Your task to perform on an android device: change the clock display to show seconds Image 0: 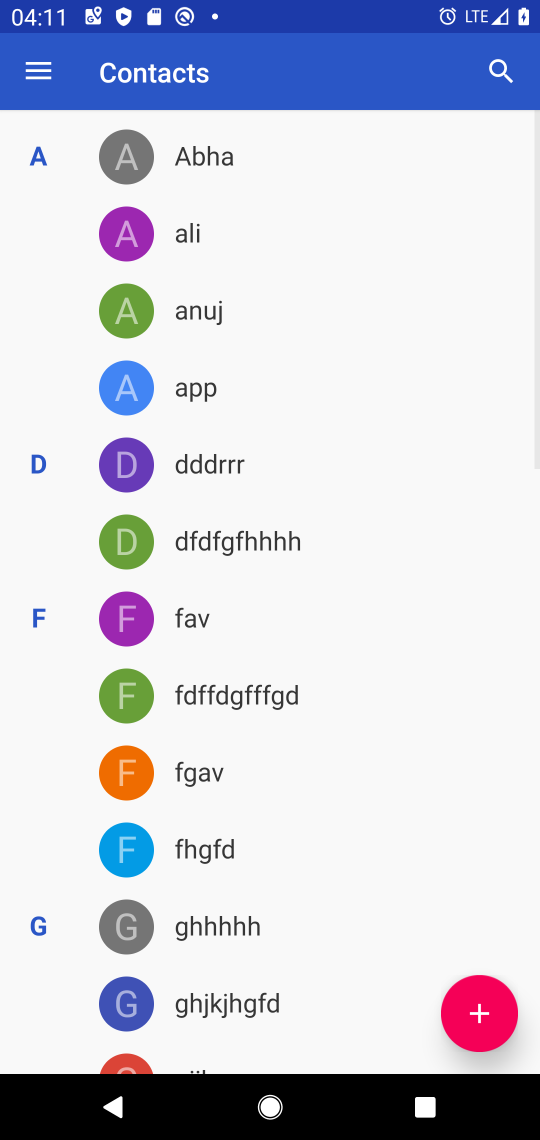
Step 0: press back button
Your task to perform on an android device: change the clock display to show seconds Image 1: 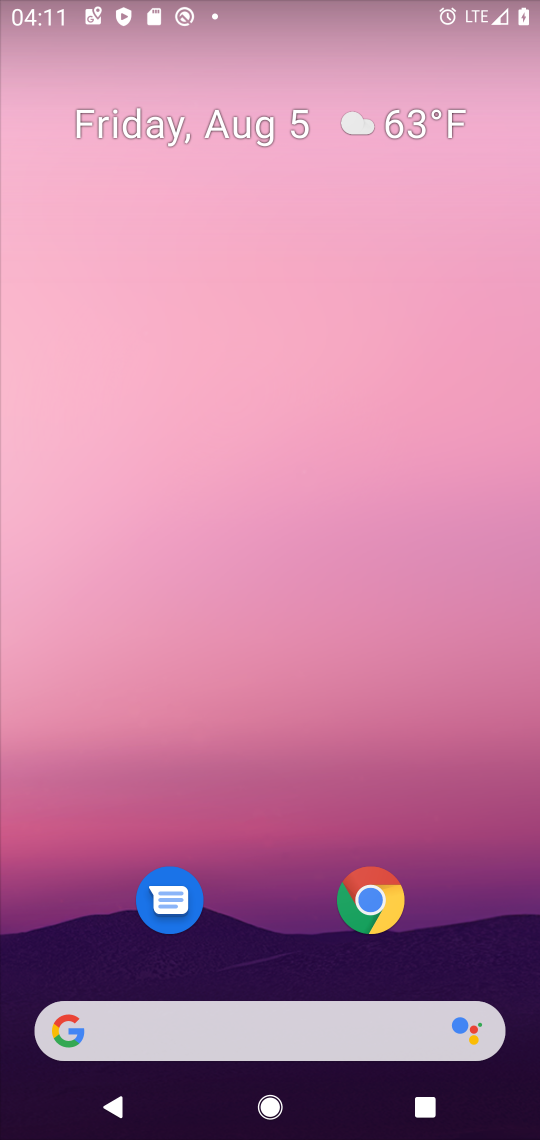
Step 1: drag from (262, 782) to (365, 5)
Your task to perform on an android device: change the clock display to show seconds Image 2: 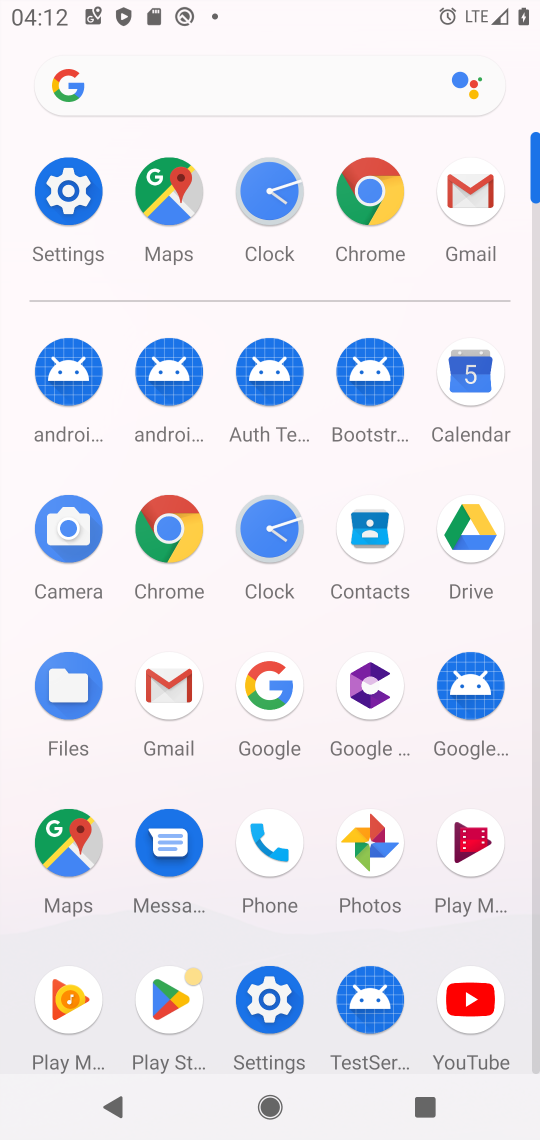
Step 2: click (273, 540)
Your task to perform on an android device: change the clock display to show seconds Image 3: 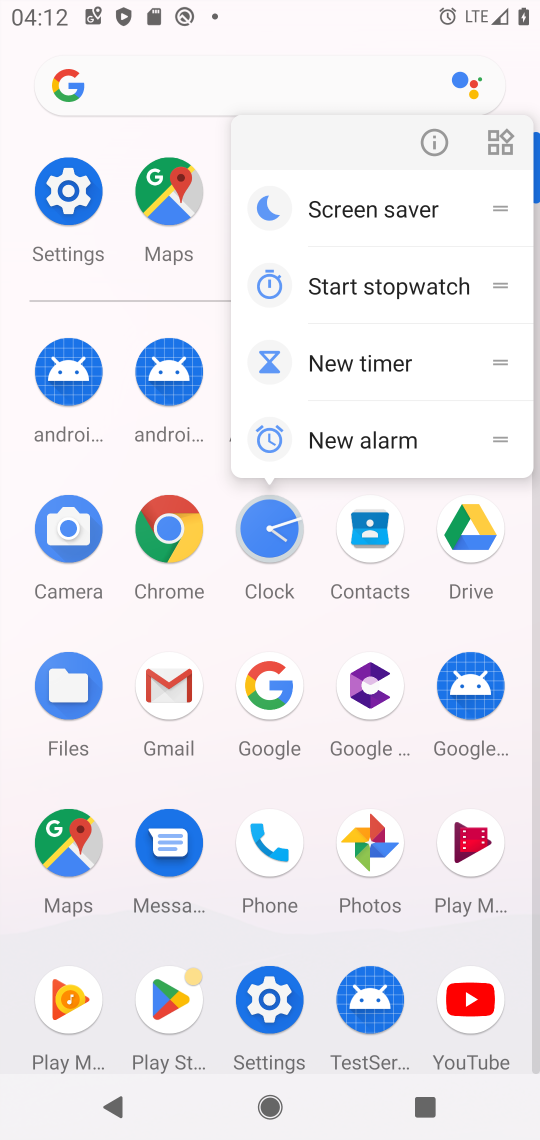
Step 3: click (272, 528)
Your task to perform on an android device: change the clock display to show seconds Image 4: 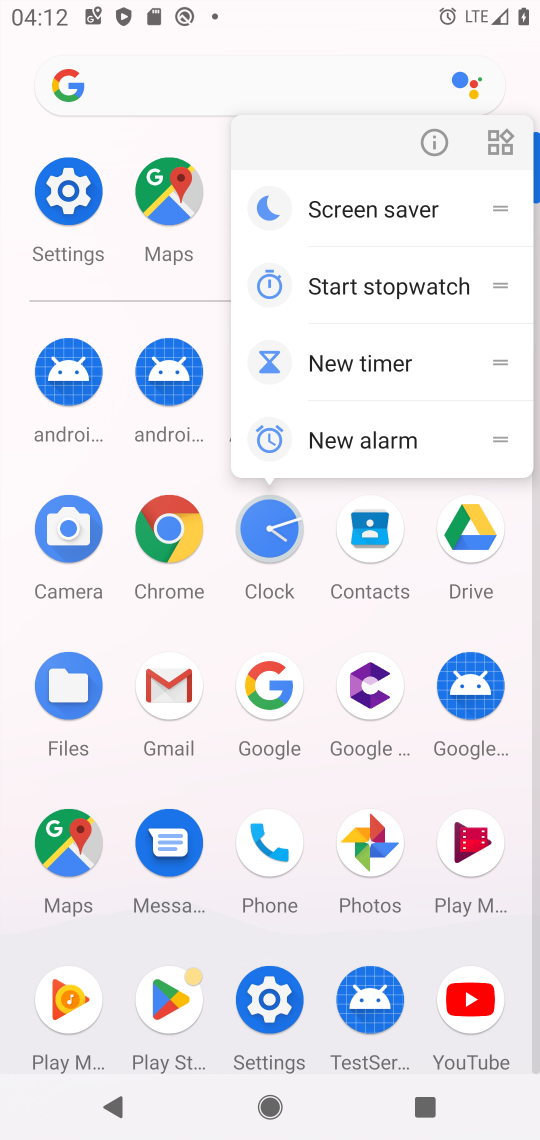
Step 4: click (260, 531)
Your task to perform on an android device: change the clock display to show seconds Image 5: 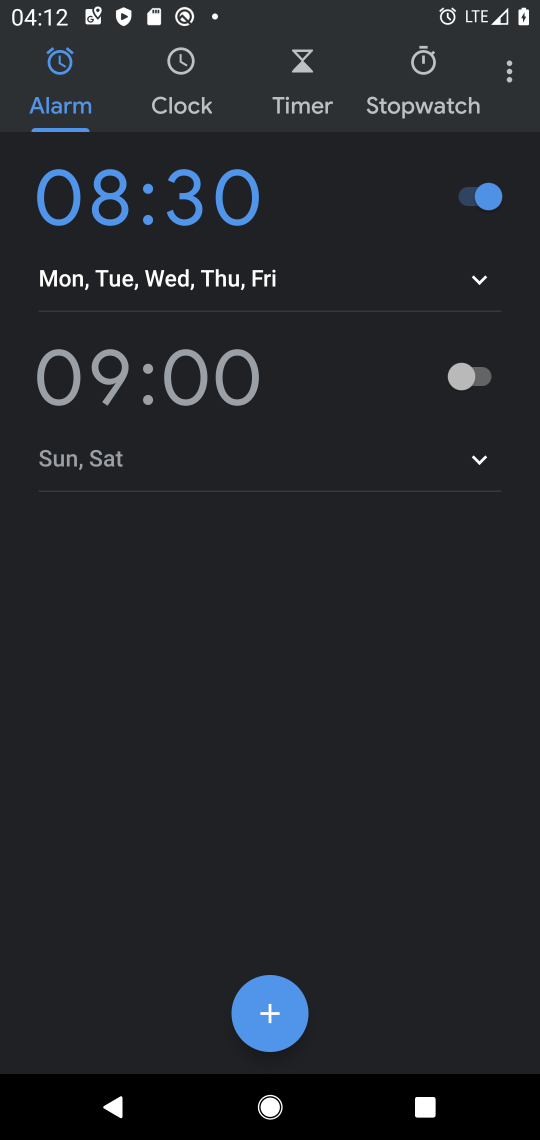
Step 5: click (505, 65)
Your task to perform on an android device: change the clock display to show seconds Image 6: 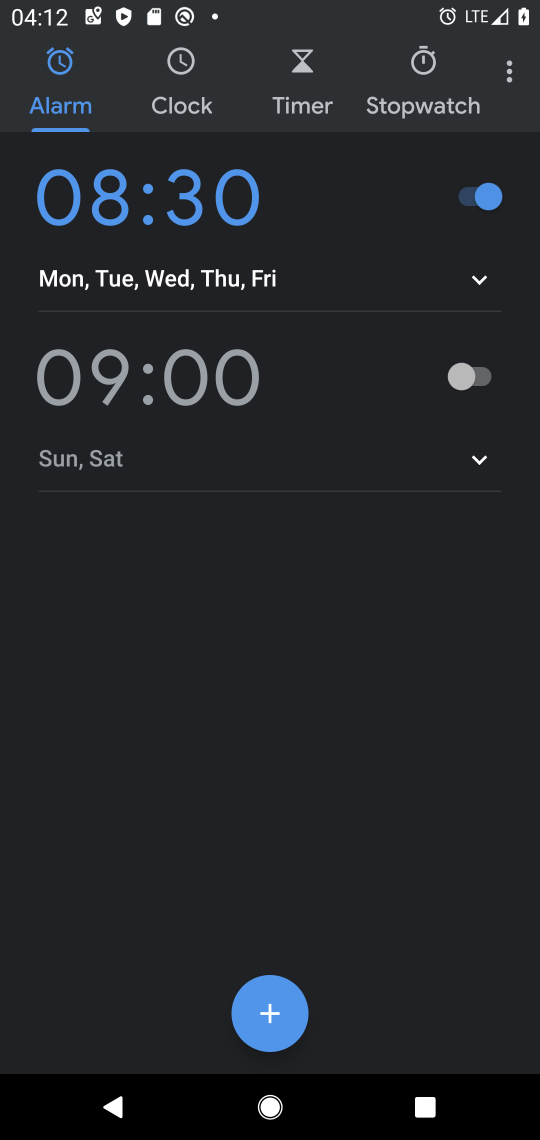
Step 6: click (516, 56)
Your task to perform on an android device: change the clock display to show seconds Image 7: 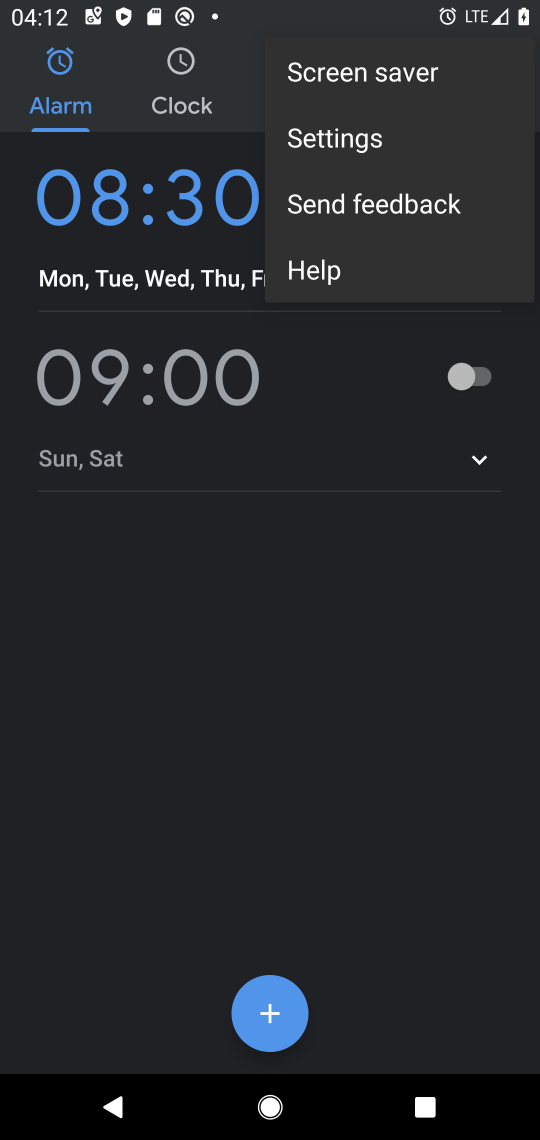
Step 7: click (345, 129)
Your task to perform on an android device: change the clock display to show seconds Image 8: 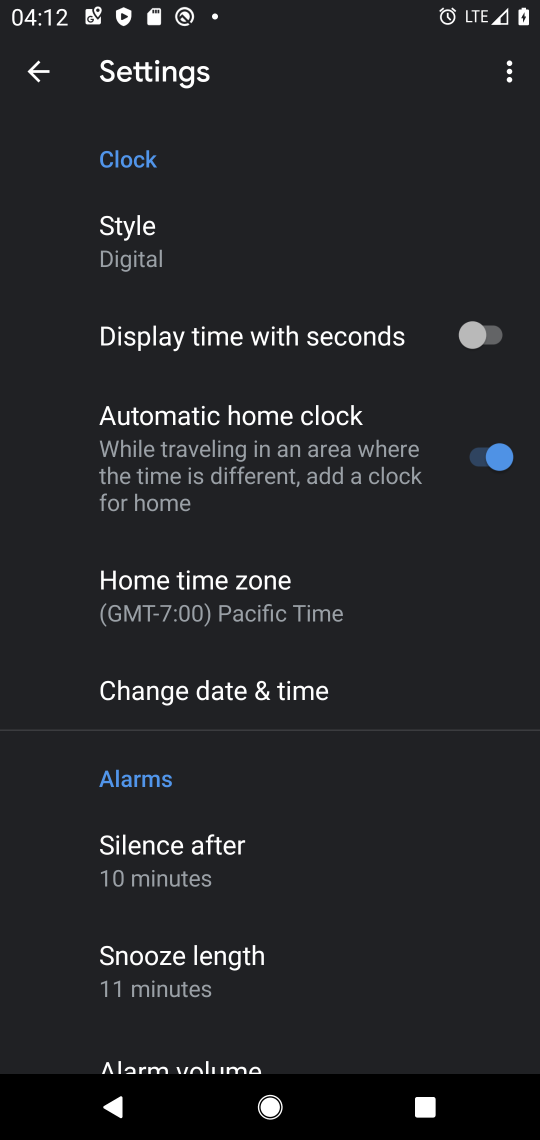
Step 8: click (467, 337)
Your task to perform on an android device: change the clock display to show seconds Image 9: 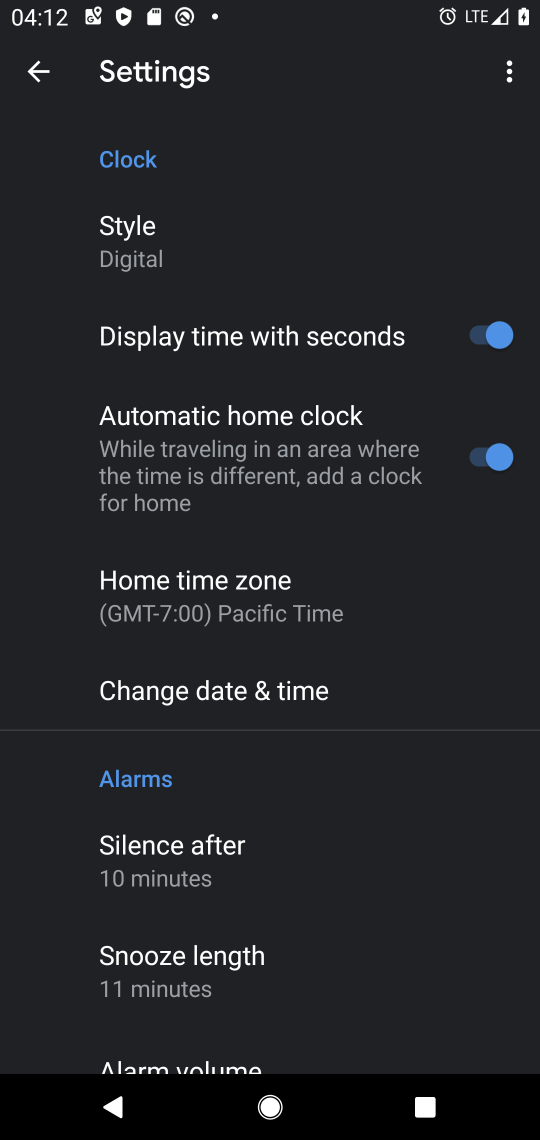
Step 9: task complete